Your task to perform on an android device: snooze an email in the gmail app Image 0: 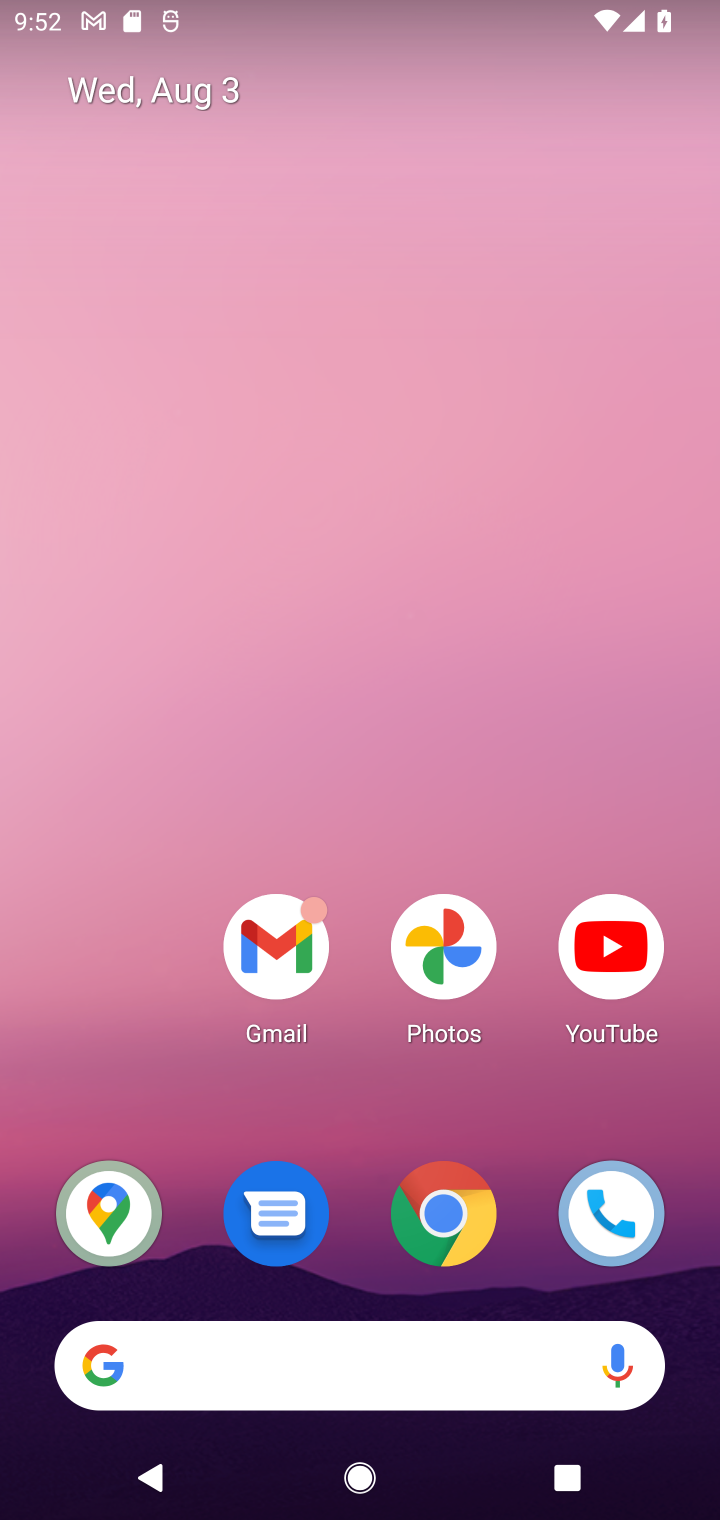
Step 0: drag from (389, 1248) to (334, 143)
Your task to perform on an android device: snooze an email in the gmail app Image 1: 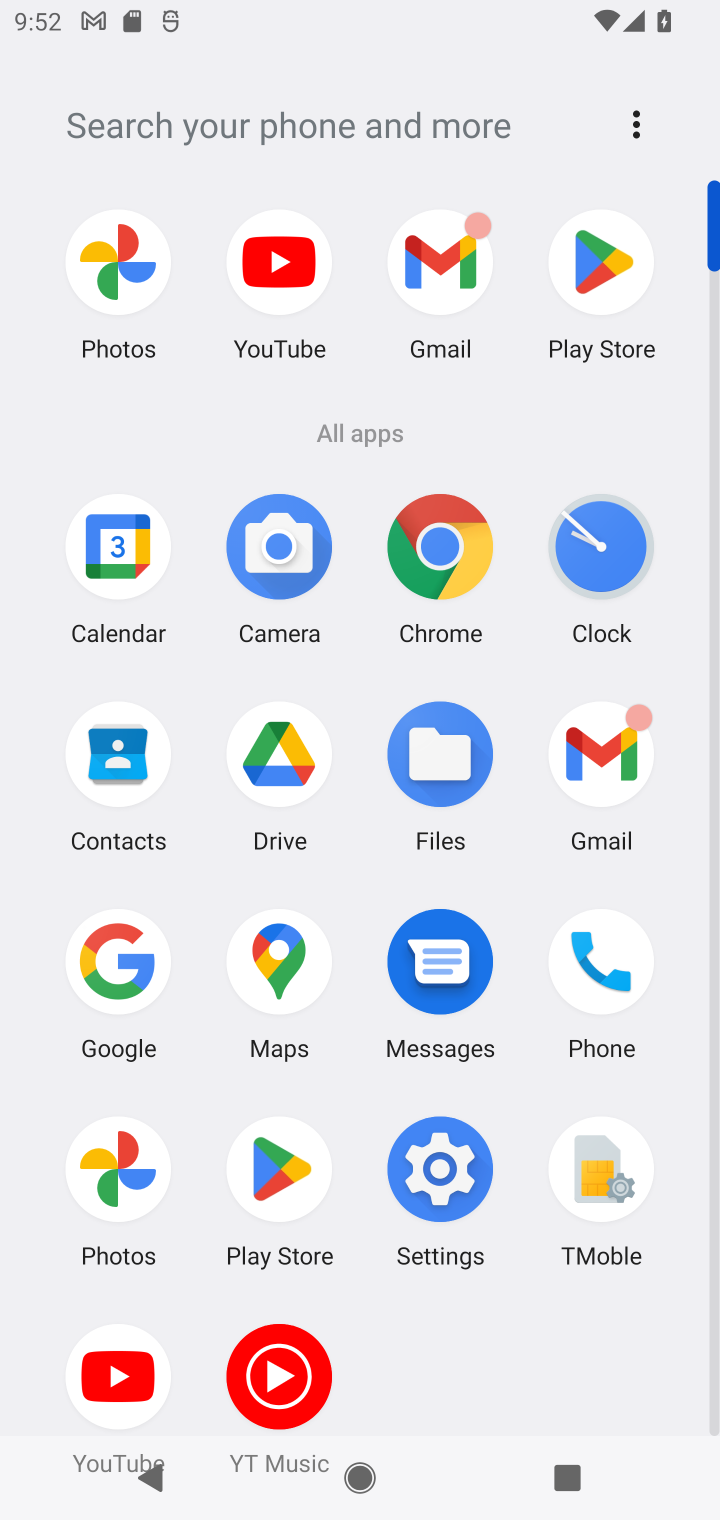
Step 1: click (598, 760)
Your task to perform on an android device: snooze an email in the gmail app Image 2: 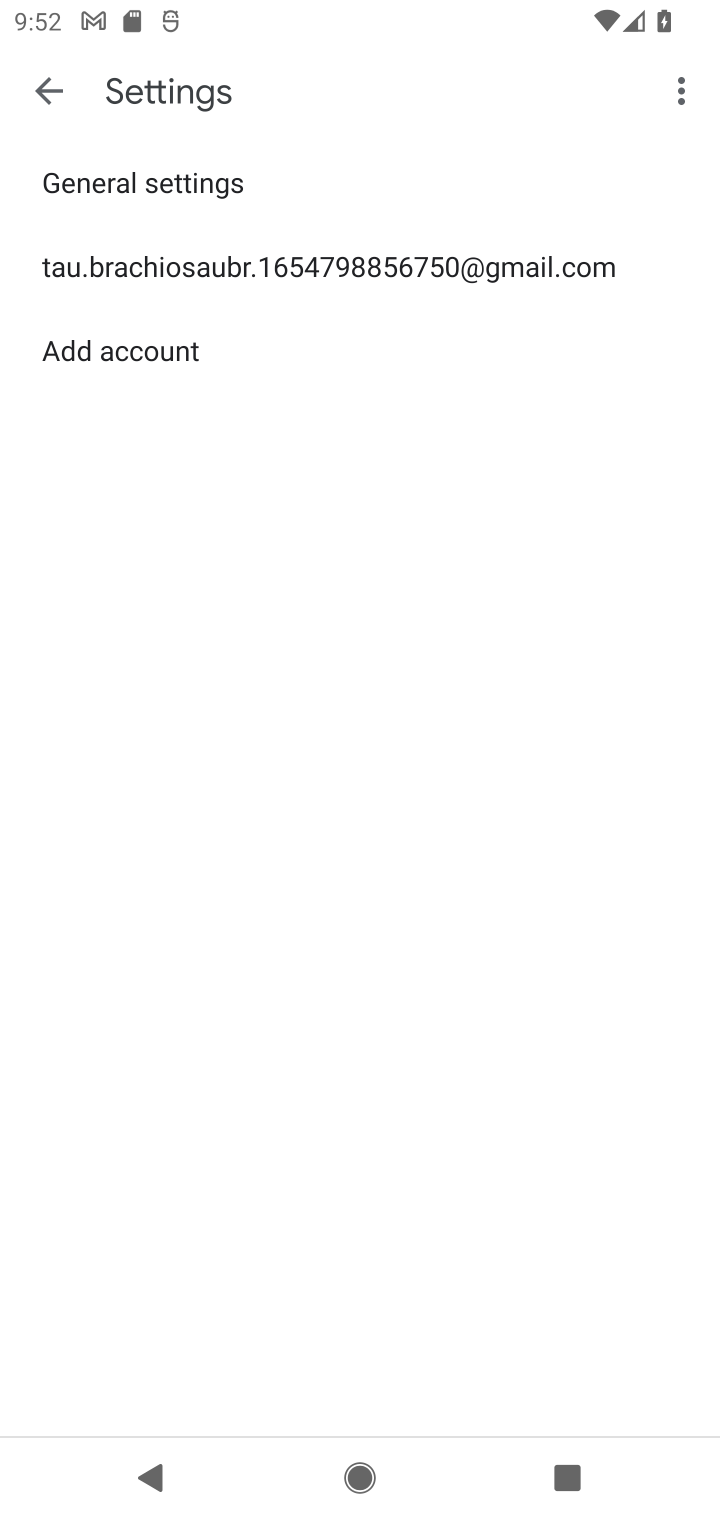
Step 2: click (48, 87)
Your task to perform on an android device: snooze an email in the gmail app Image 3: 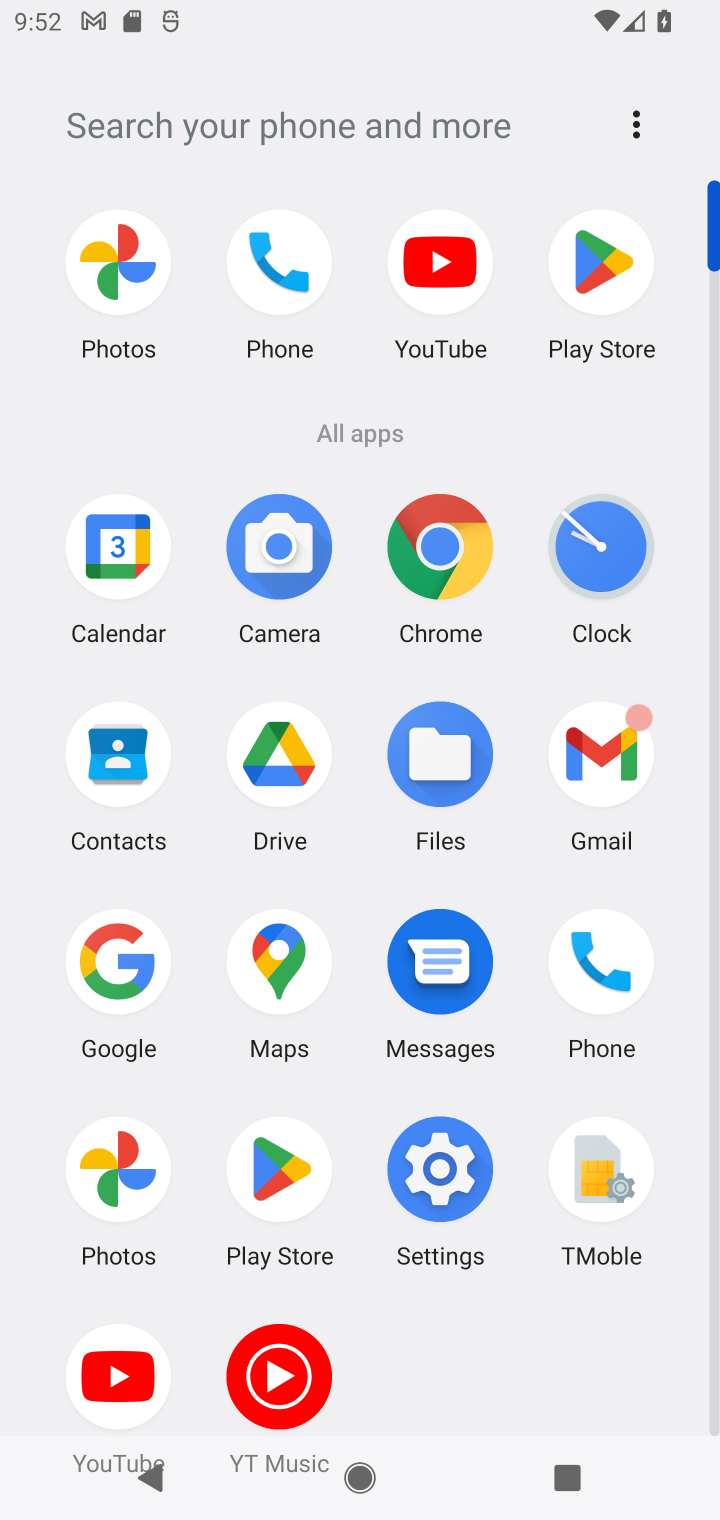
Step 3: click (596, 729)
Your task to perform on an android device: snooze an email in the gmail app Image 4: 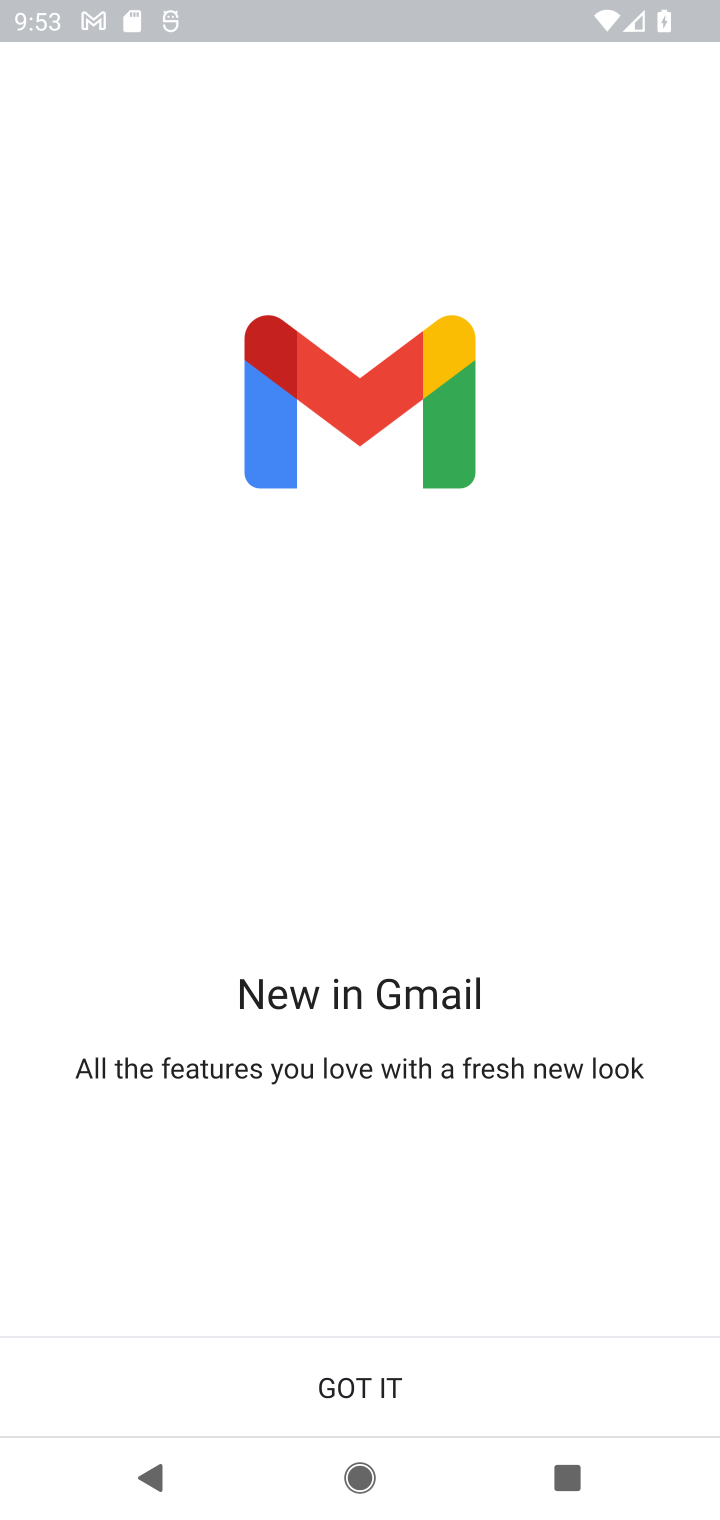
Step 4: click (402, 1372)
Your task to perform on an android device: snooze an email in the gmail app Image 5: 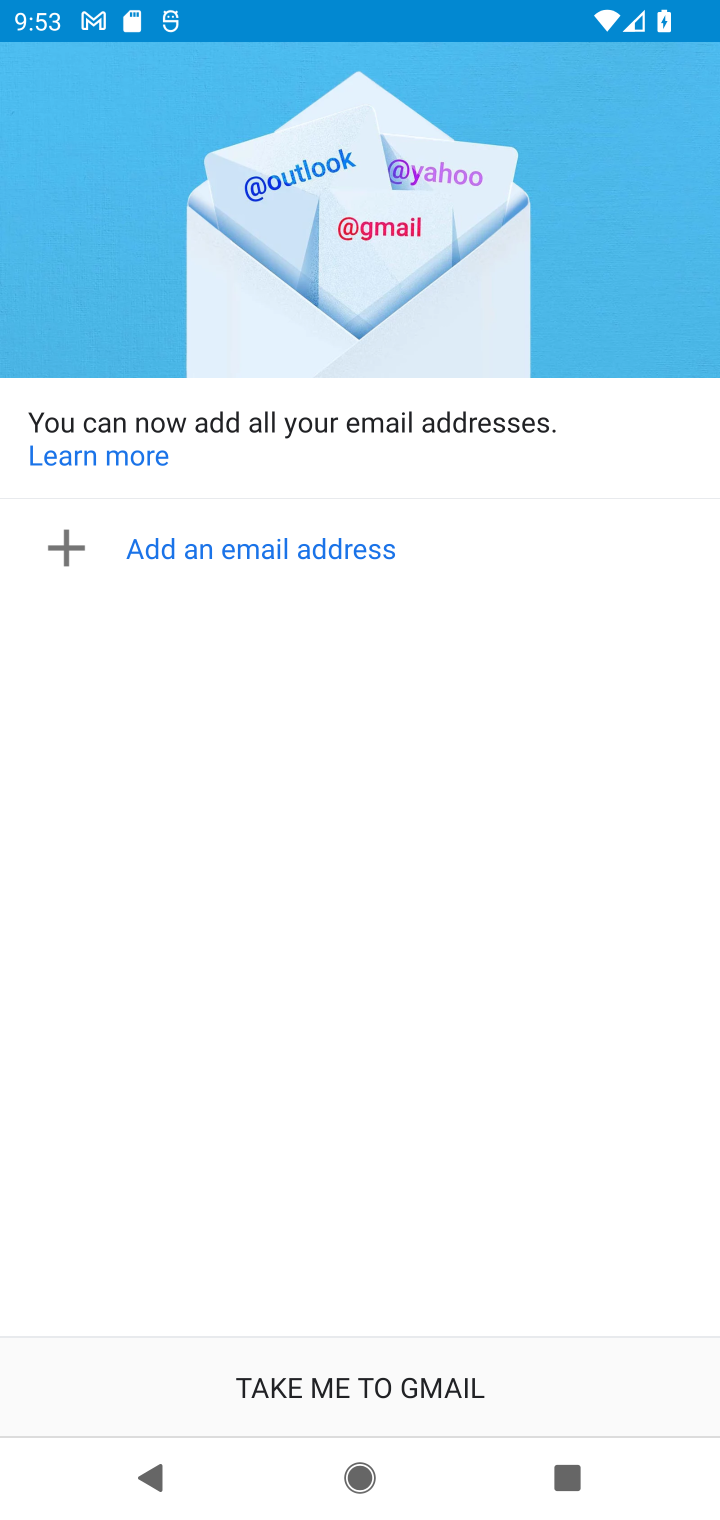
Step 5: click (402, 1372)
Your task to perform on an android device: snooze an email in the gmail app Image 6: 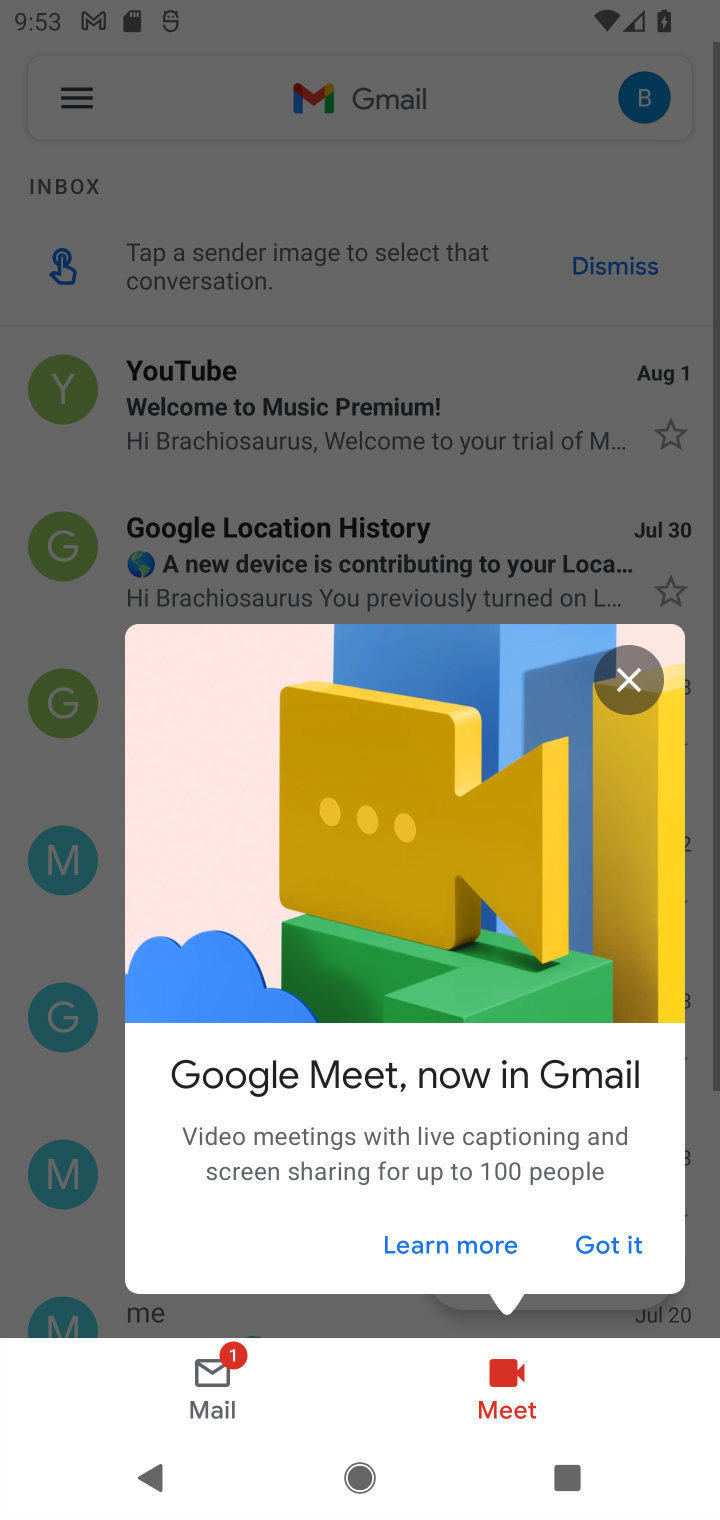
Step 6: click (634, 687)
Your task to perform on an android device: snooze an email in the gmail app Image 7: 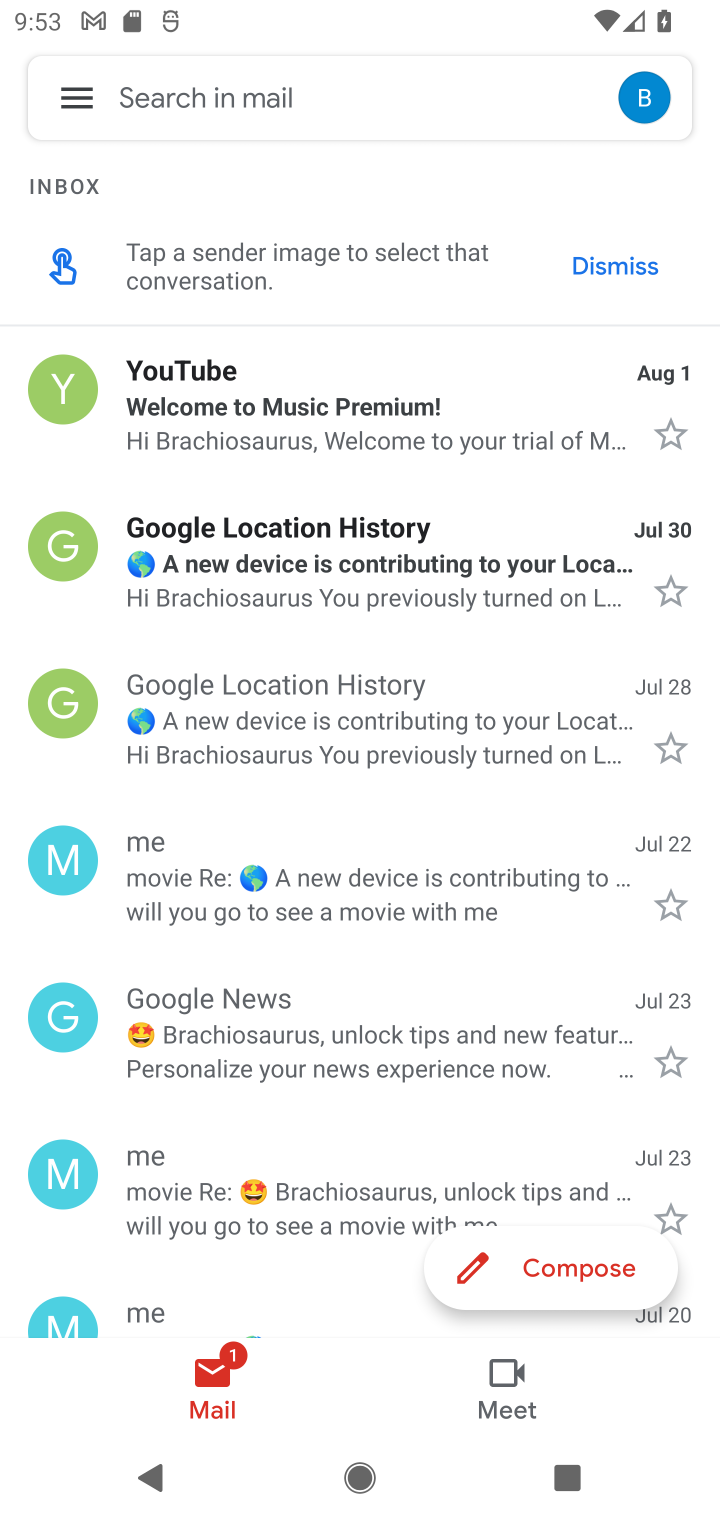
Step 7: click (257, 427)
Your task to perform on an android device: snooze an email in the gmail app Image 8: 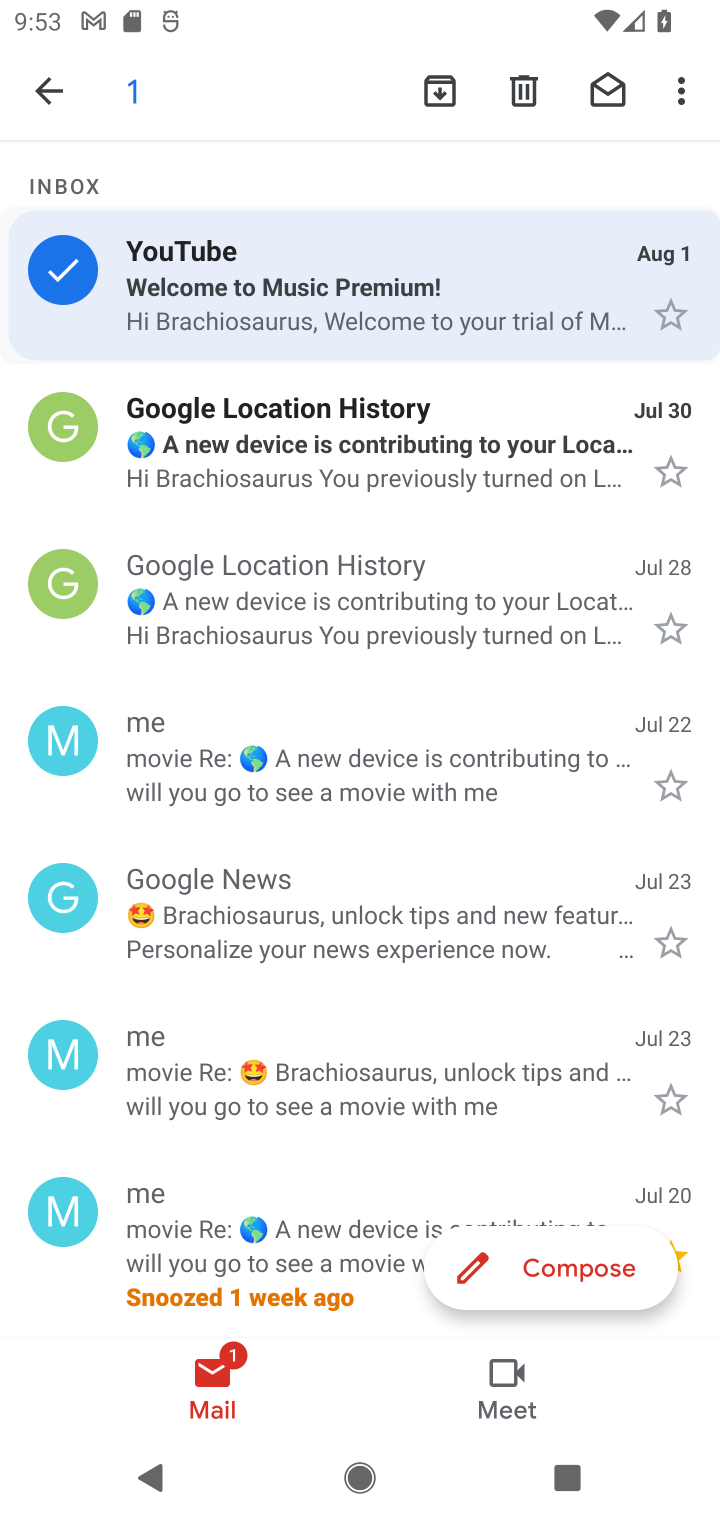
Step 8: click (682, 86)
Your task to perform on an android device: snooze an email in the gmail app Image 9: 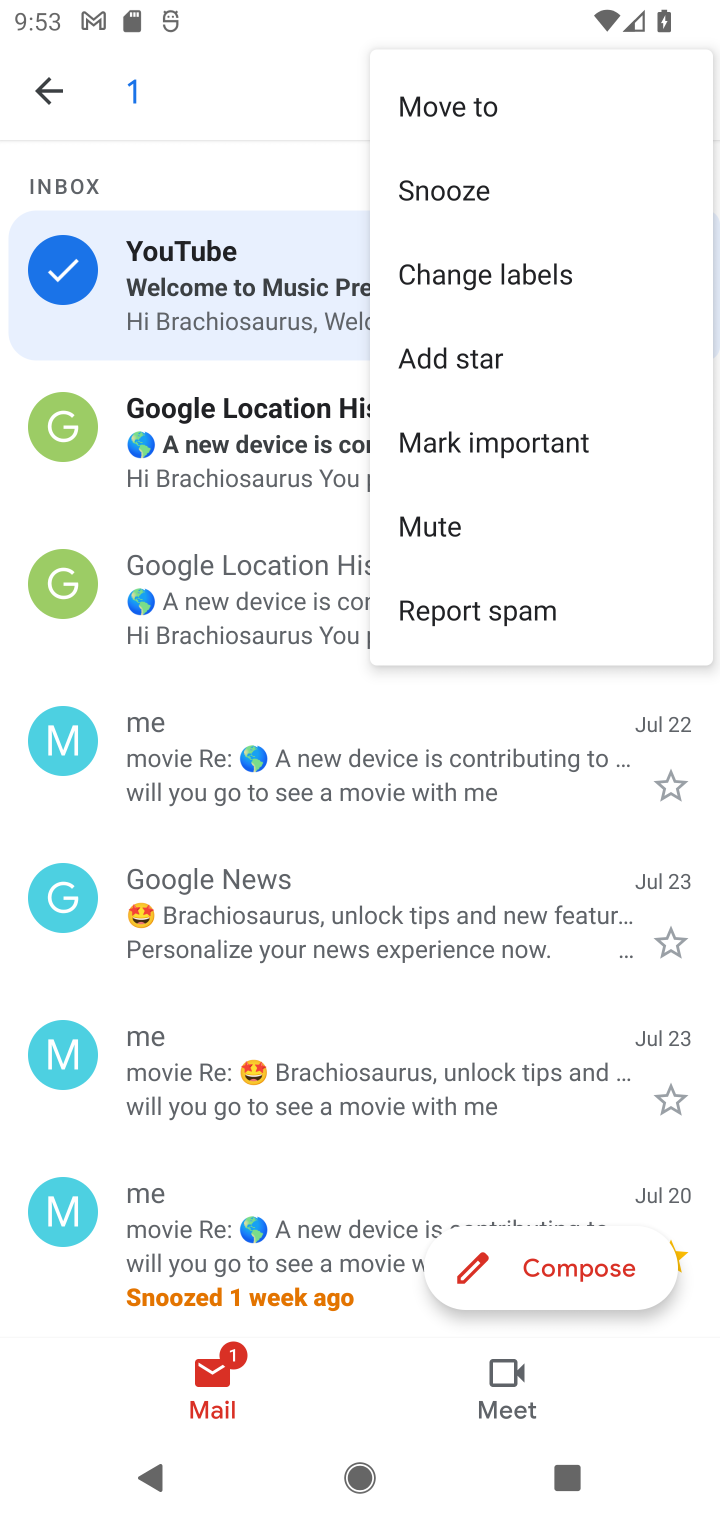
Step 9: click (459, 203)
Your task to perform on an android device: snooze an email in the gmail app Image 10: 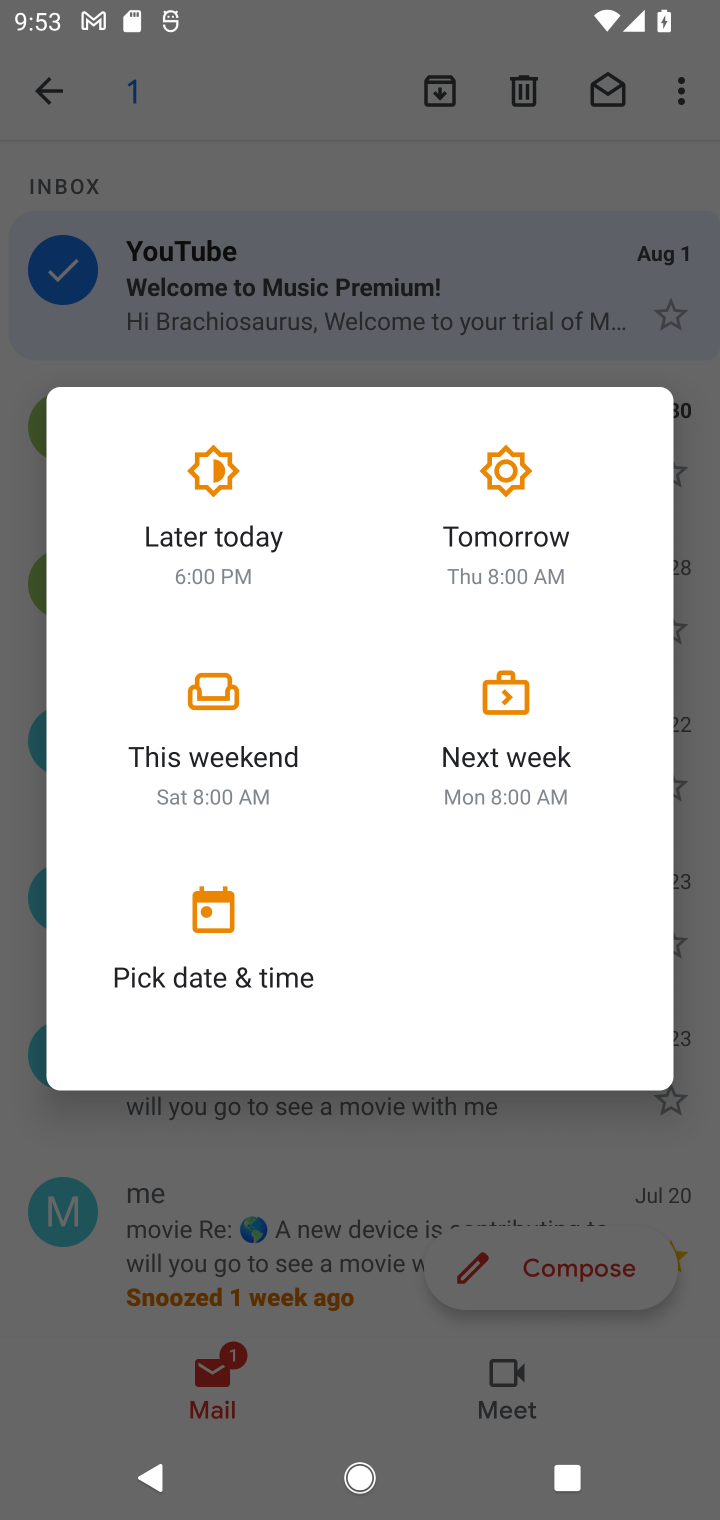
Step 10: click (224, 985)
Your task to perform on an android device: snooze an email in the gmail app Image 11: 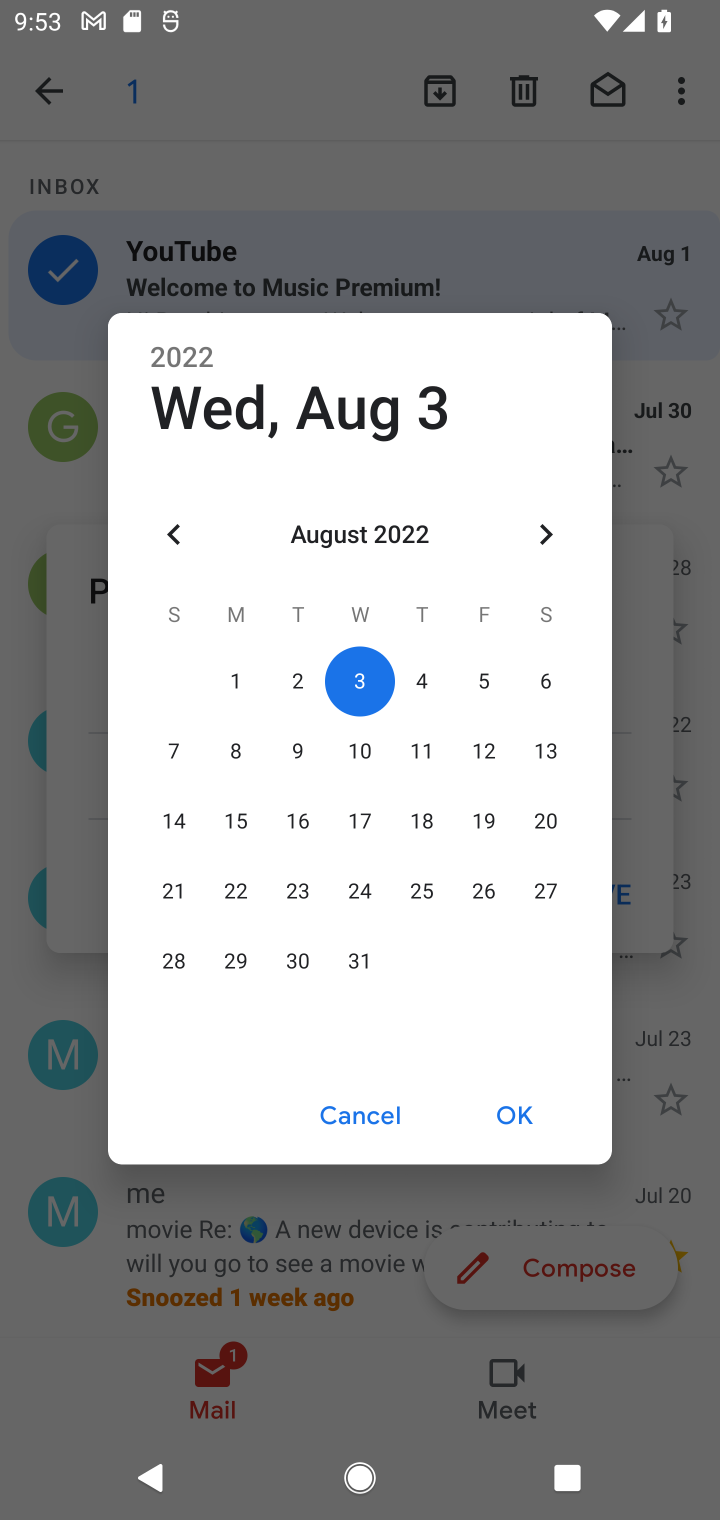
Step 11: click (501, 1111)
Your task to perform on an android device: snooze an email in the gmail app Image 12: 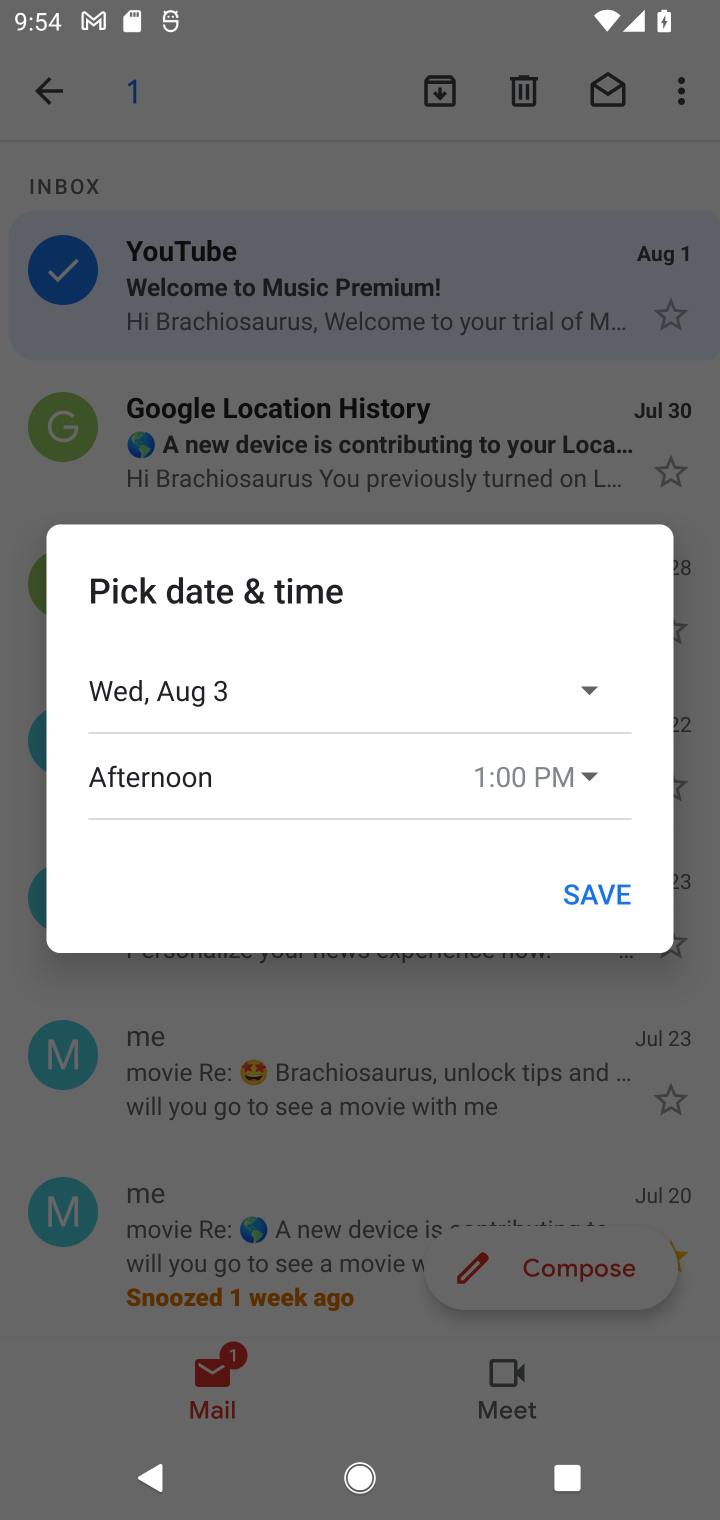
Step 12: click (617, 880)
Your task to perform on an android device: snooze an email in the gmail app Image 13: 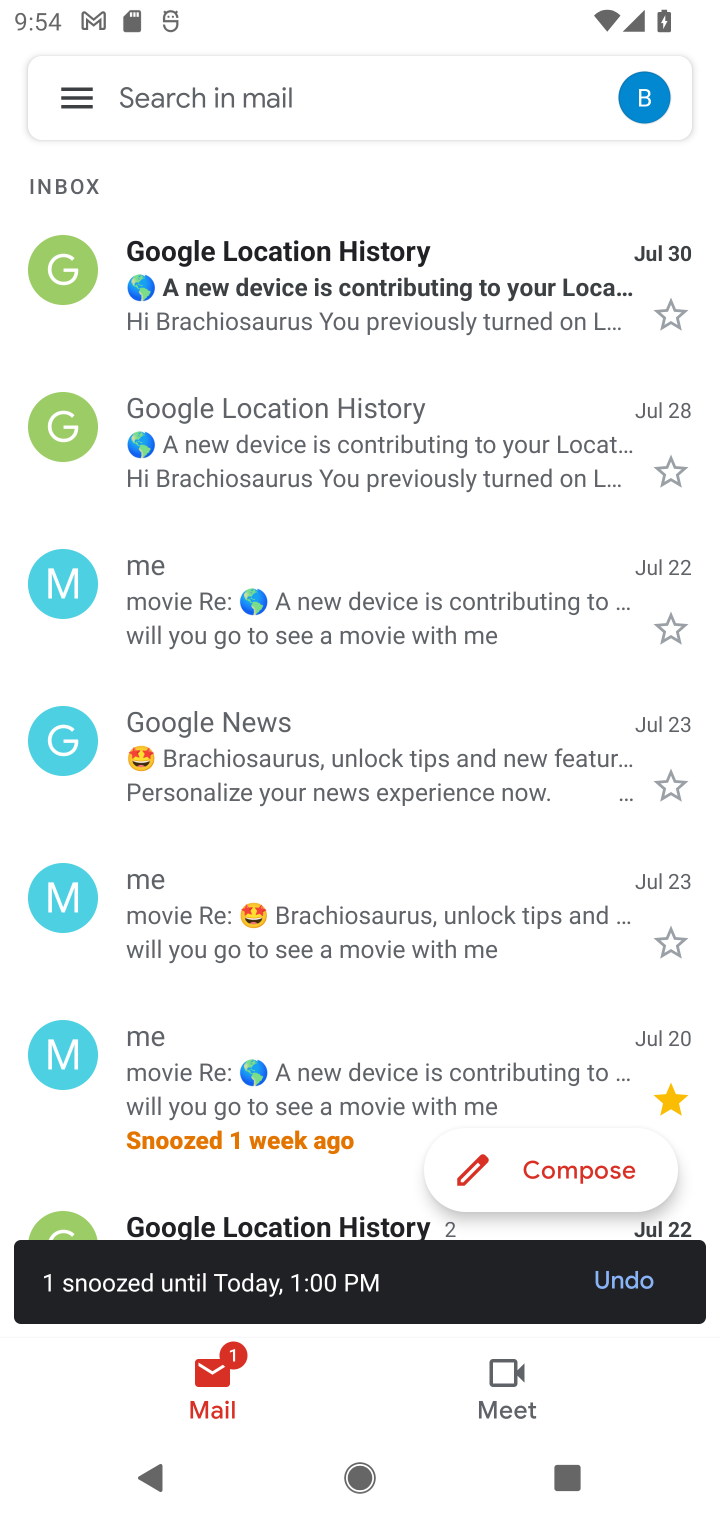
Step 13: task complete